Your task to perform on an android device: read, delete, or share a saved page in the chrome app Image 0: 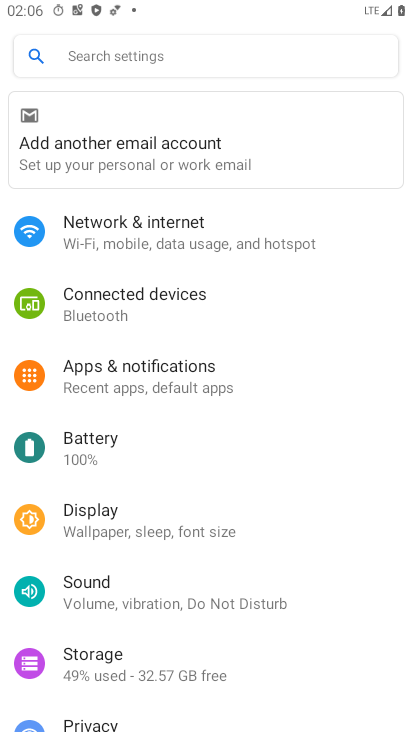
Step 0: press home button
Your task to perform on an android device: read, delete, or share a saved page in the chrome app Image 1: 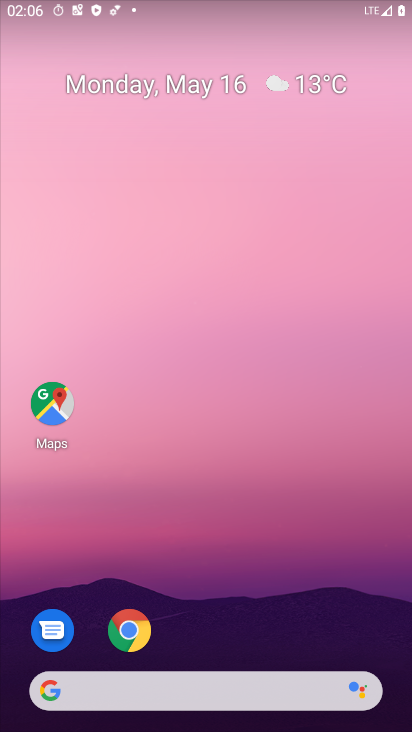
Step 1: drag from (324, 497) to (278, 229)
Your task to perform on an android device: read, delete, or share a saved page in the chrome app Image 2: 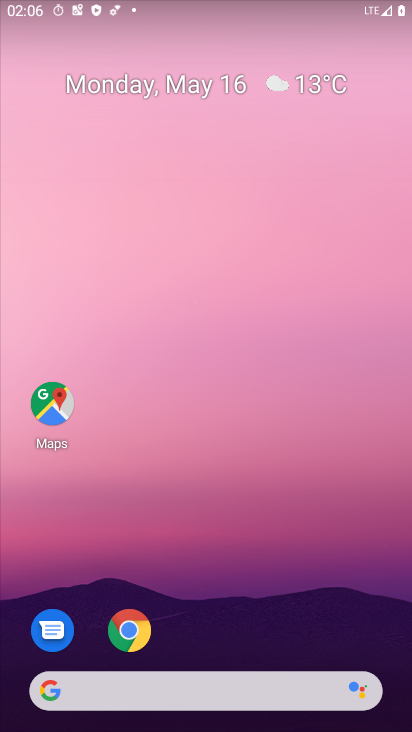
Step 2: drag from (350, 609) to (280, 163)
Your task to perform on an android device: read, delete, or share a saved page in the chrome app Image 3: 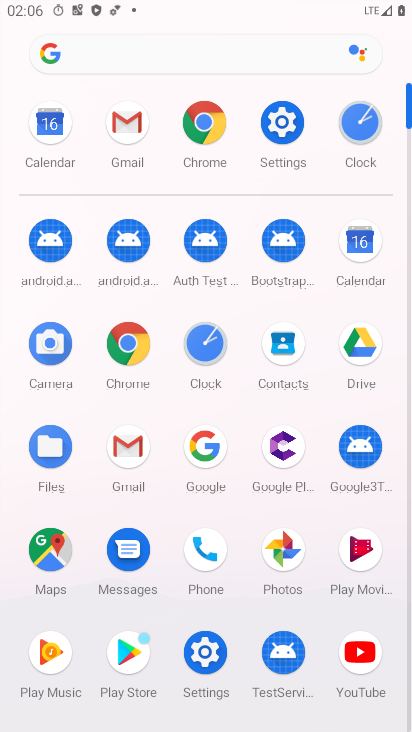
Step 3: click (137, 354)
Your task to perform on an android device: read, delete, or share a saved page in the chrome app Image 4: 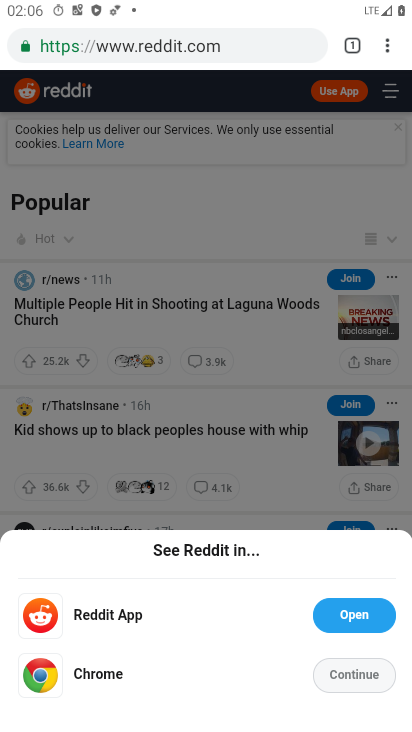
Step 4: drag from (383, 47) to (256, 240)
Your task to perform on an android device: read, delete, or share a saved page in the chrome app Image 5: 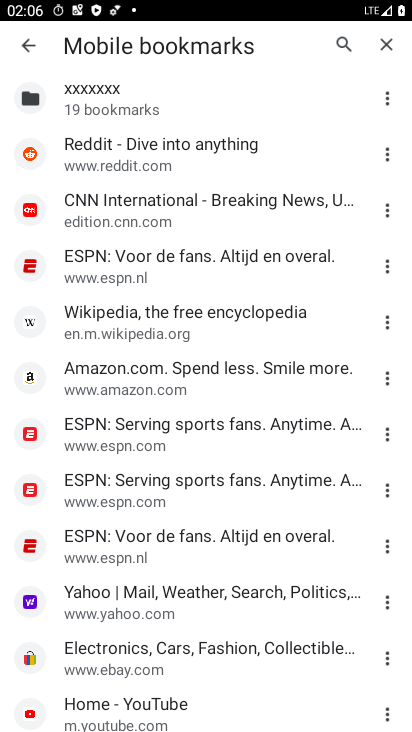
Step 5: click (393, 96)
Your task to perform on an android device: read, delete, or share a saved page in the chrome app Image 6: 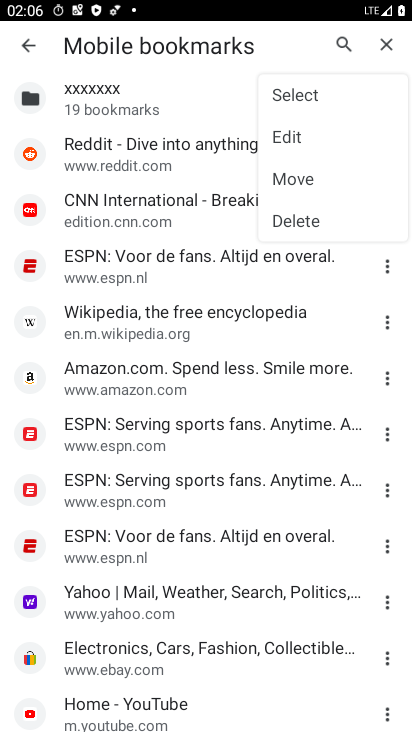
Step 6: click (302, 215)
Your task to perform on an android device: read, delete, or share a saved page in the chrome app Image 7: 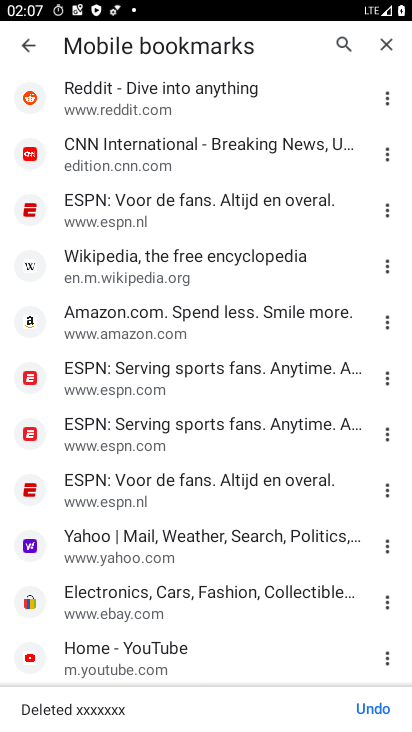
Step 7: task complete